Your task to perform on an android device: Go to Wikipedia Image 0: 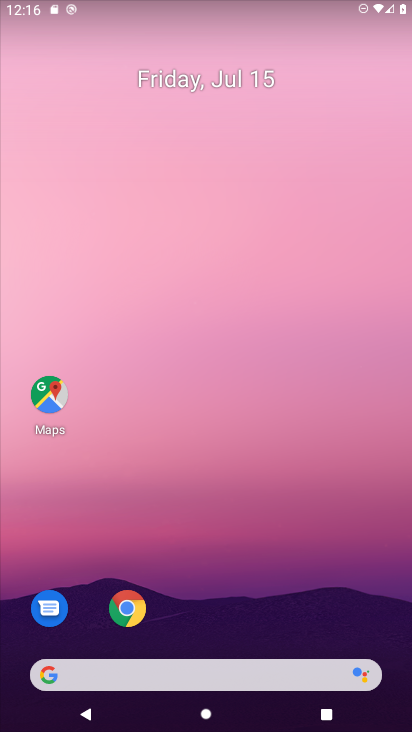
Step 0: drag from (297, 671) to (205, 98)
Your task to perform on an android device: Go to Wikipedia Image 1: 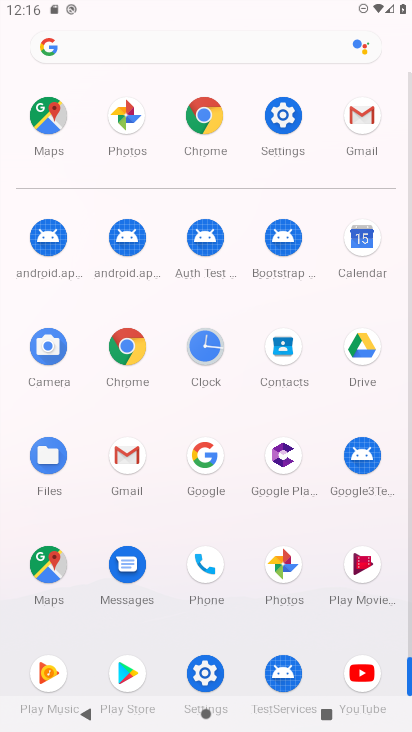
Step 1: click (132, 347)
Your task to perform on an android device: Go to Wikipedia Image 2: 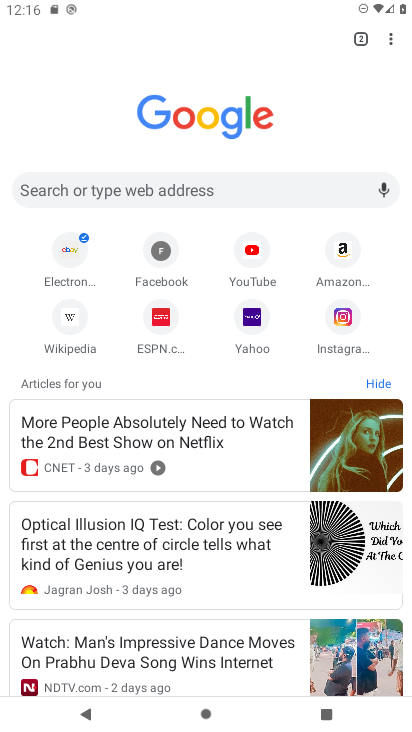
Step 2: drag from (391, 35) to (323, 63)
Your task to perform on an android device: Go to Wikipedia Image 3: 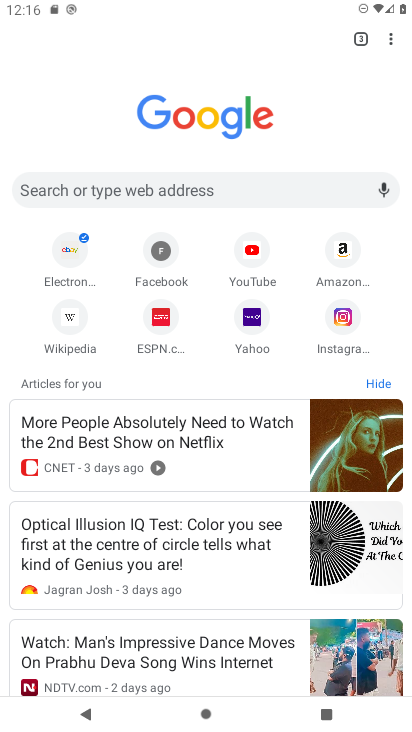
Step 3: click (78, 321)
Your task to perform on an android device: Go to Wikipedia Image 4: 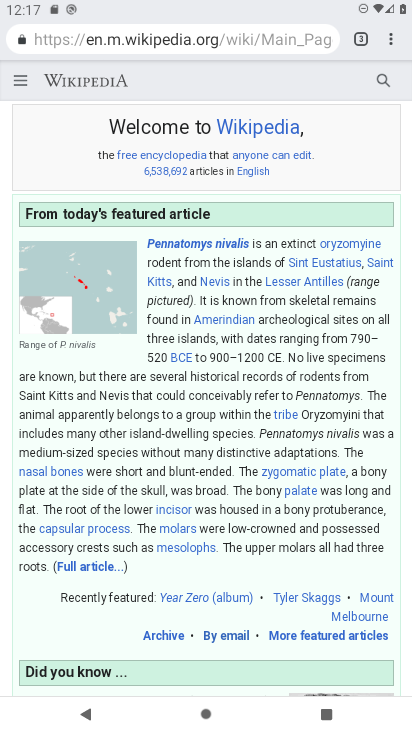
Step 4: task complete